Your task to perform on an android device: Go to calendar. Show me events next week Image 0: 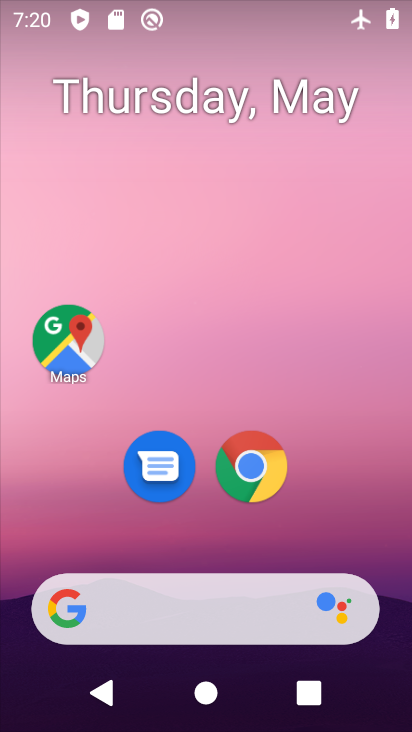
Step 0: drag from (340, 490) to (209, 45)
Your task to perform on an android device: Go to calendar. Show me events next week Image 1: 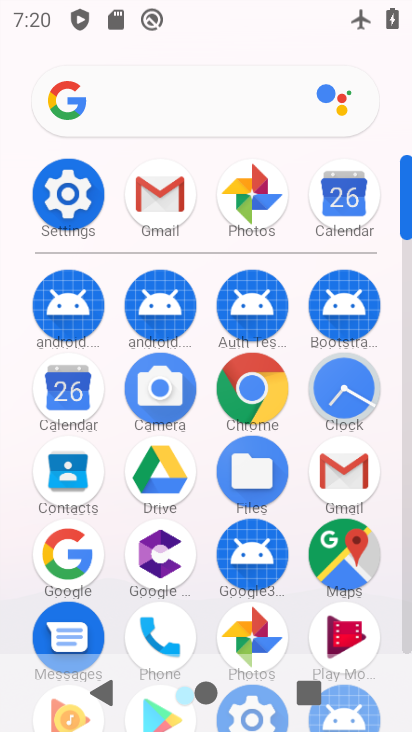
Step 1: click (69, 387)
Your task to perform on an android device: Go to calendar. Show me events next week Image 2: 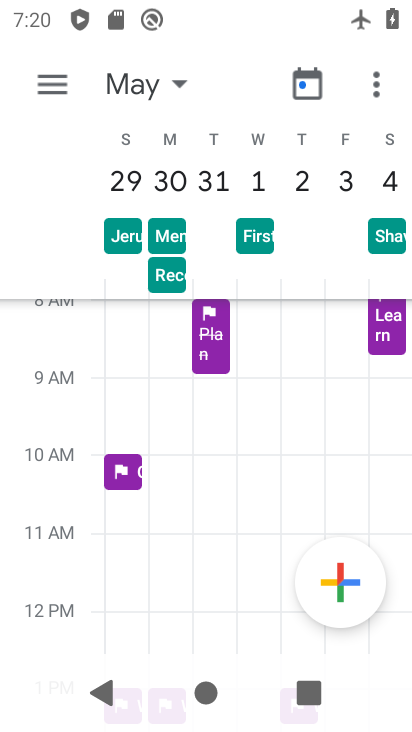
Step 2: click (177, 76)
Your task to perform on an android device: Go to calendar. Show me events next week Image 3: 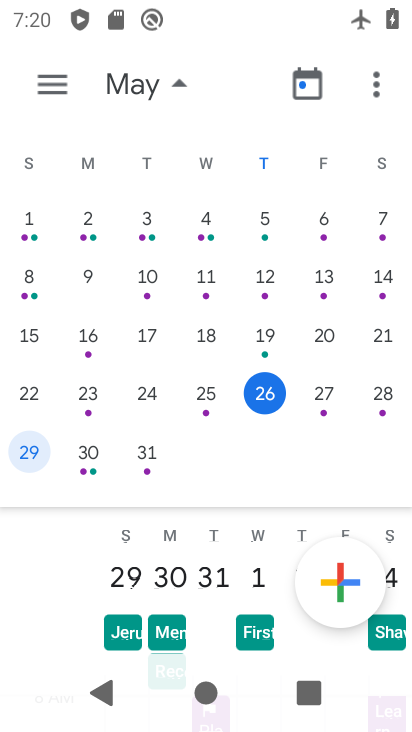
Step 3: click (177, 76)
Your task to perform on an android device: Go to calendar. Show me events next week Image 4: 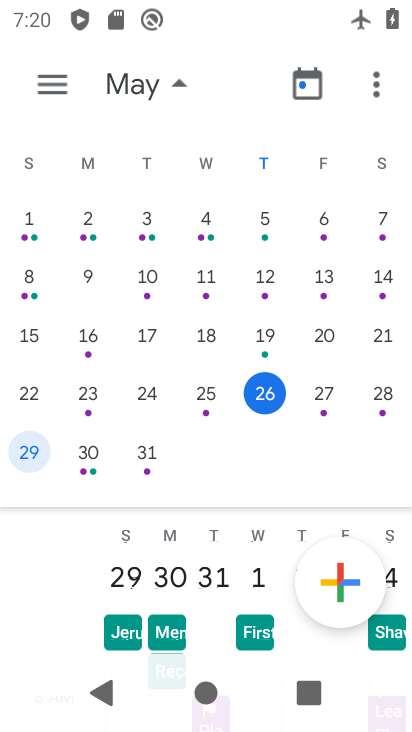
Step 4: click (177, 76)
Your task to perform on an android device: Go to calendar. Show me events next week Image 5: 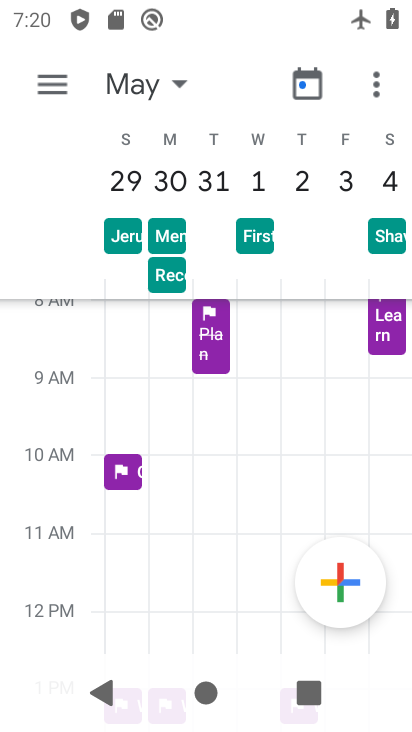
Step 5: task complete